Your task to perform on an android device: stop showing notifications on the lock screen Image 0: 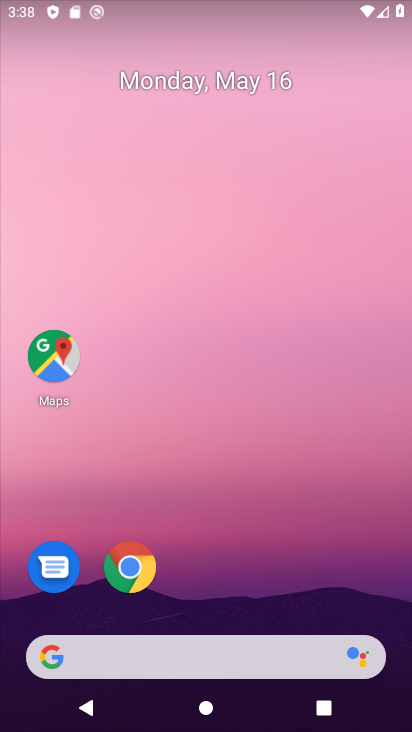
Step 0: press home button
Your task to perform on an android device: stop showing notifications on the lock screen Image 1: 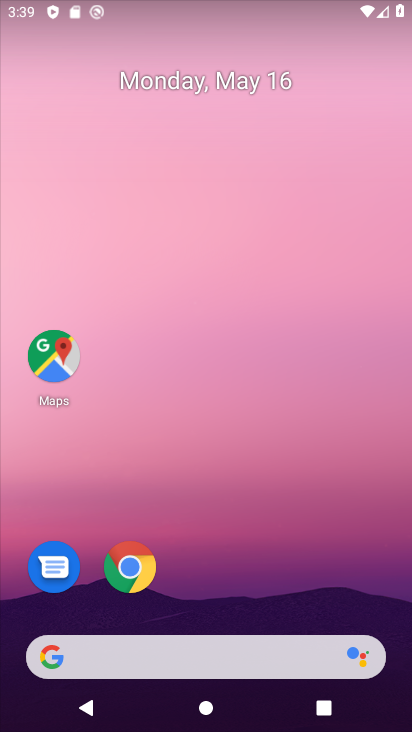
Step 1: drag from (285, 667) to (329, 0)
Your task to perform on an android device: stop showing notifications on the lock screen Image 2: 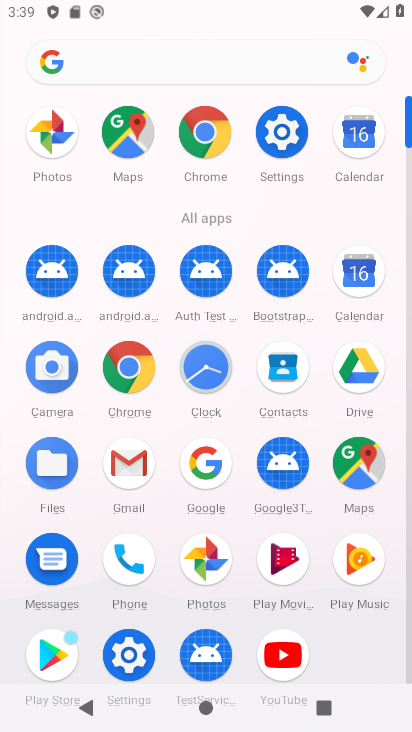
Step 2: click (270, 135)
Your task to perform on an android device: stop showing notifications on the lock screen Image 3: 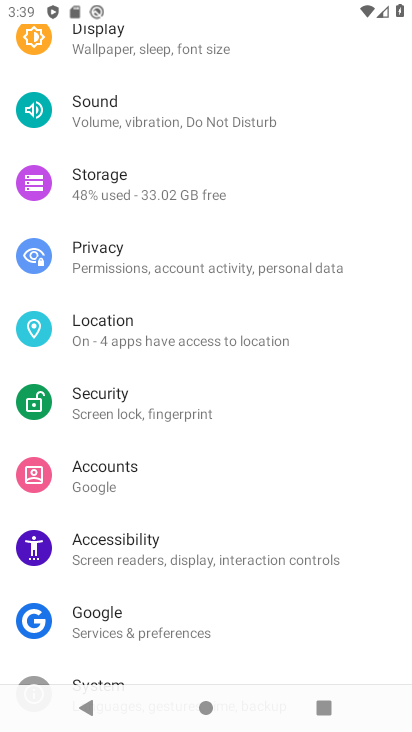
Step 3: drag from (247, 143) to (306, 681)
Your task to perform on an android device: stop showing notifications on the lock screen Image 4: 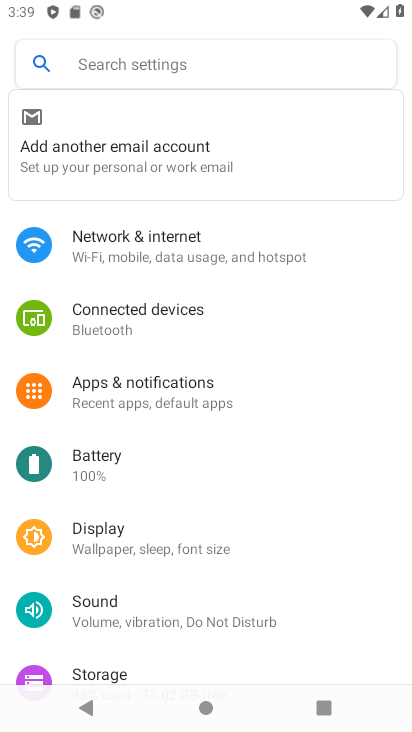
Step 4: click (170, 360)
Your task to perform on an android device: stop showing notifications on the lock screen Image 5: 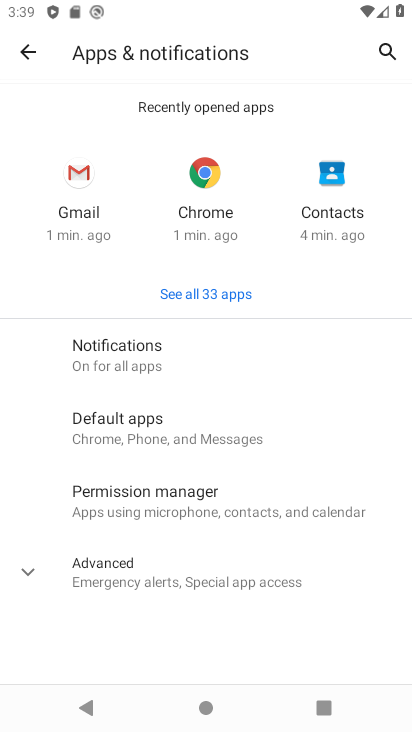
Step 5: click (181, 343)
Your task to perform on an android device: stop showing notifications on the lock screen Image 6: 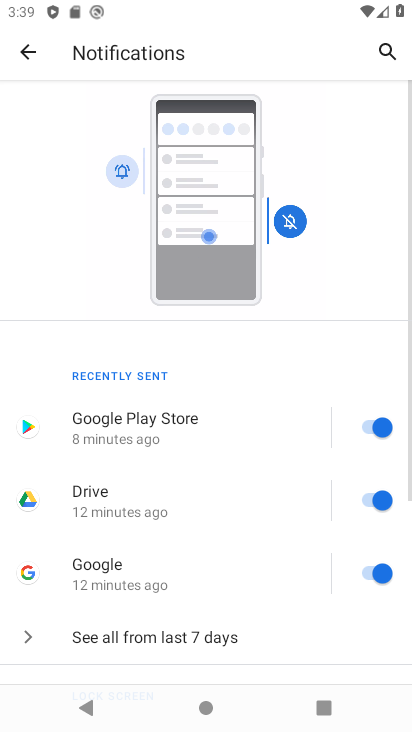
Step 6: drag from (245, 621) to (385, 7)
Your task to perform on an android device: stop showing notifications on the lock screen Image 7: 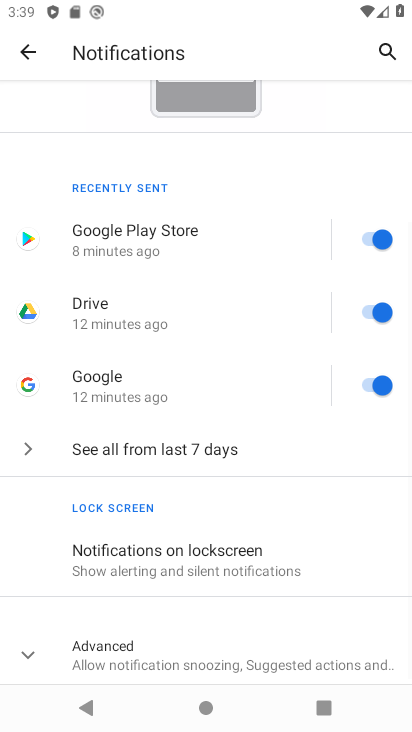
Step 7: click (237, 546)
Your task to perform on an android device: stop showing notifications on the lock screen Image 8: 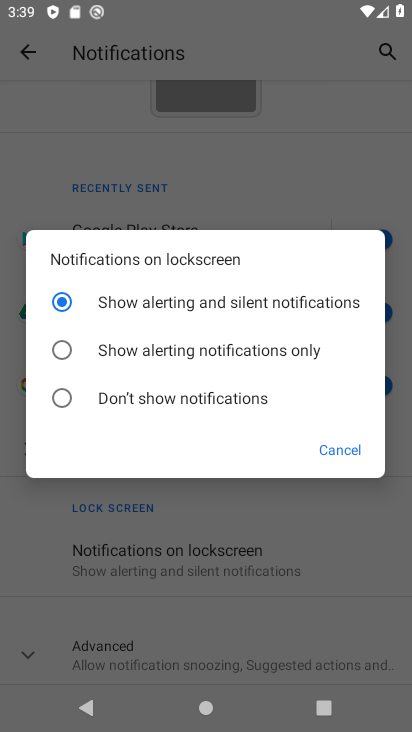
Step 8: click (90, 403)
Your task to perform on an android device: stop showing notifications on the lock screen Image 9: 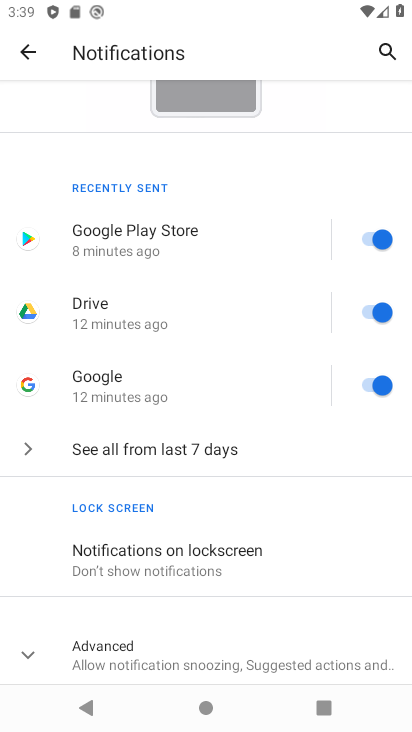
Step 9: task complete